Your task to perform on an android device: choose inbox layout in the gmail app Image 0: 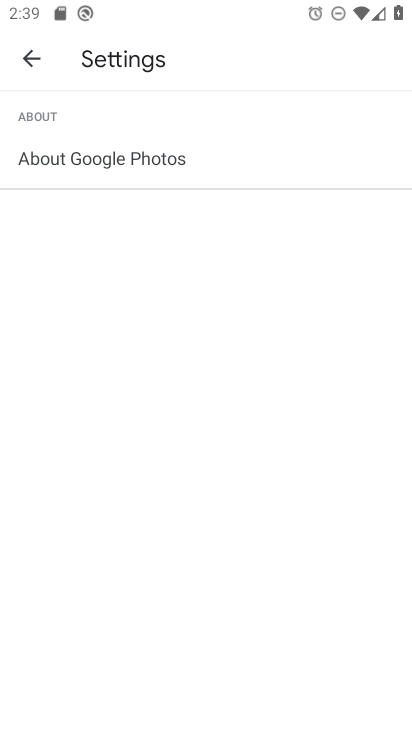
Step 0: press home button
Your task to perform on an android device: choose inbox layout in the gmail app Image 1: 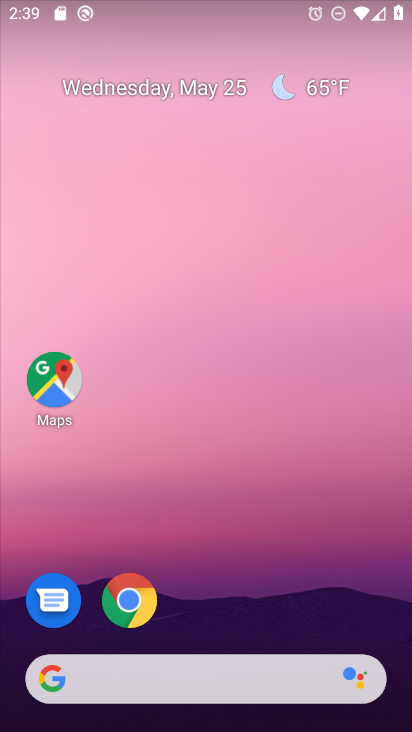
Step 1: drag from (397, 536) to (391, 359)
Your task to perform on an android device: choose inbox layout in the gmail app Image 2: 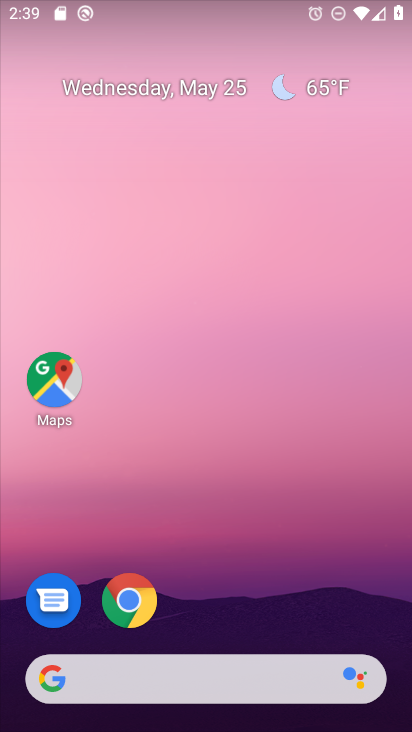
Step 2: drag from (310, 613) to (323, 106)
Your task to perform on an android device: choose inbox layout in the gmail app Image 3: 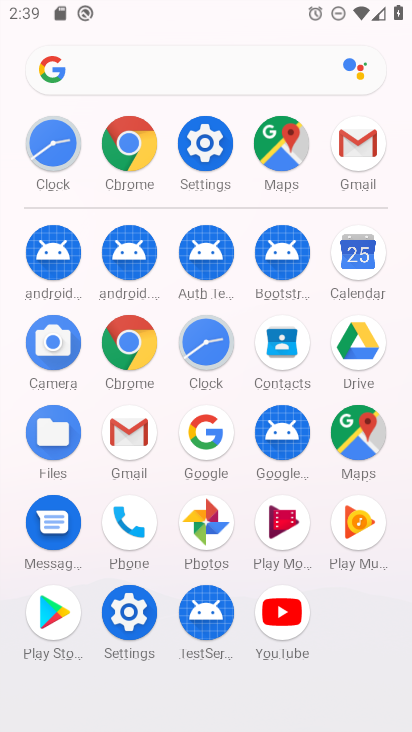
Step 3: click (354, 142)
Your task to perform on an android device: choose inbox layout in the gmail app Image 4: 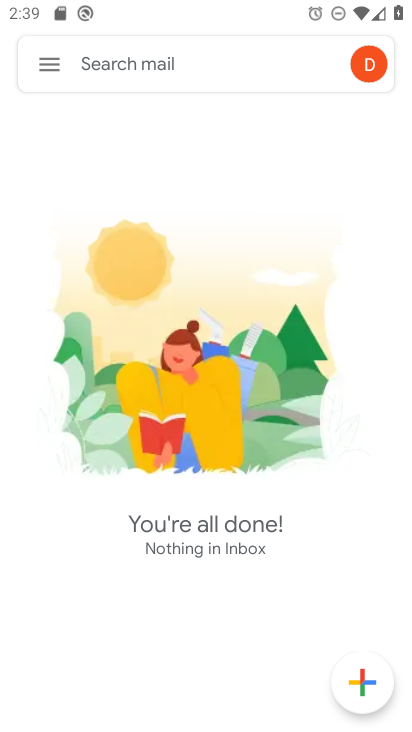
Step 4: click (37, 52)
Your task to perform on an android device: choose inbox layout in the gmail app Image 5: 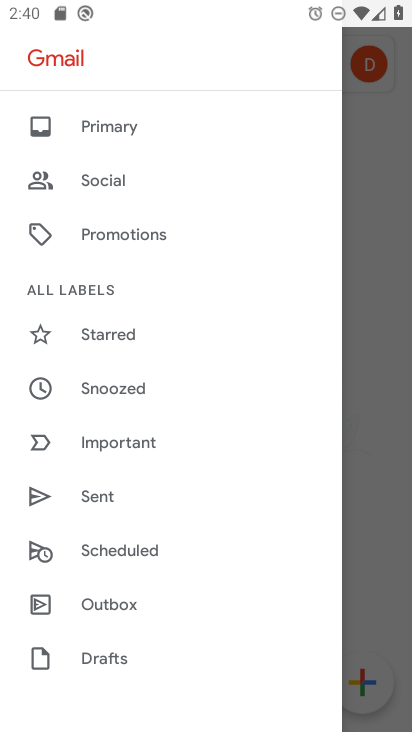
Step 5: drag from (88, 622) to (158, 153)
Your task to perform on an android device: choose inbox layout in the gmail app Image 6: 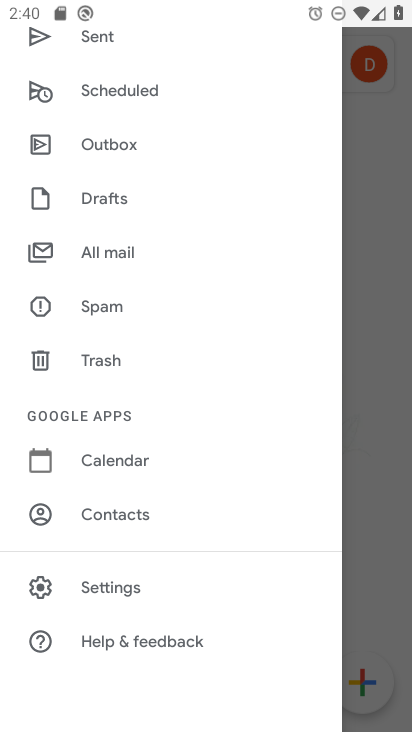
Step 6: click (144, 593)
Your task to perform on an android device: choose inbox layout in the gmail app Image 7: 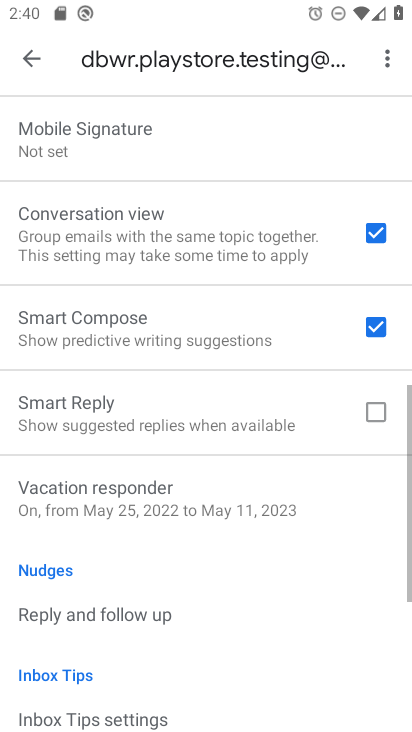
Step 7: drag from (188, 142) to (56, 688)
Your task to perform on an android device: choose inbox layout in the gmail app Image 8: 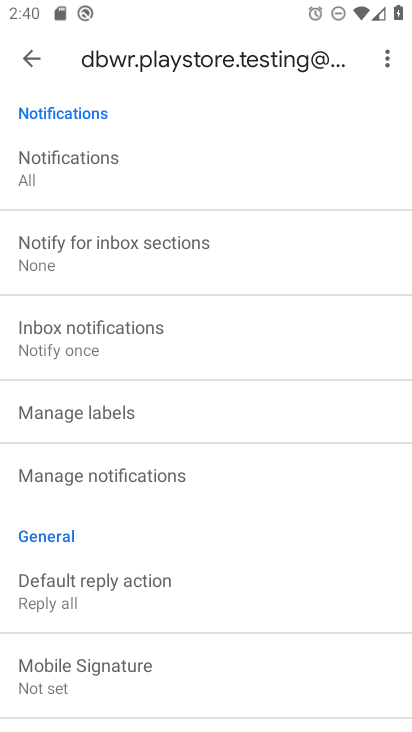
Step 8: drag from (215, 167) to (100, 574)
Your task to perform on an android device: choose inbox layout in the gmail app Image 9: 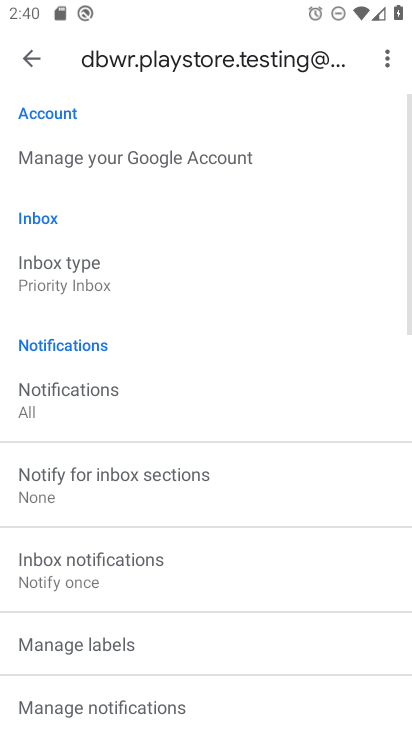
Step 9: click (103, 288)
Your task to perform on an android device: choose inbox layout in the gmail app Image 10: 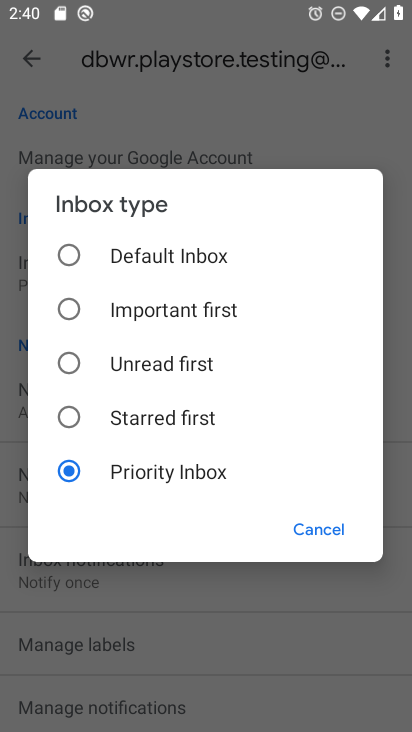
Step 10: task complete